Your task to perform on an android device: Is it going to rain today? Image 0: 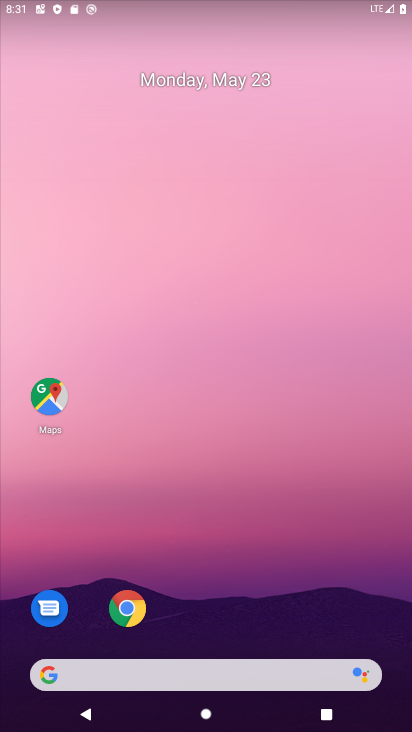
Step 0: drag from (14, 329) to (408, 294)
Your task to perform on an android device: Is it going to rain today? Image 1: 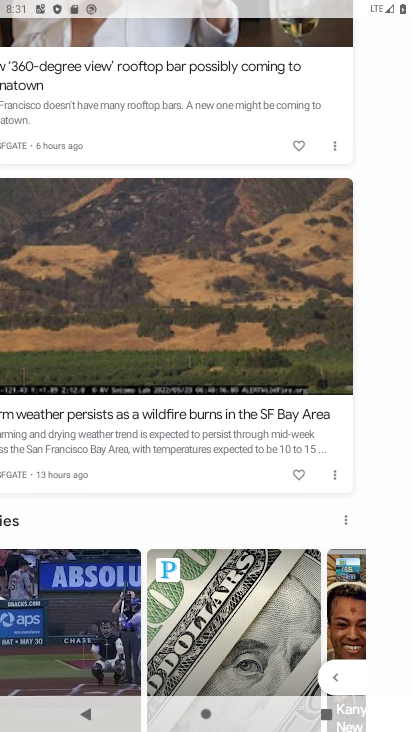
Step 1: drag from (139, 112) to (235, 711)
Your task to perform on an android device: Is it going to rain today? Image 2: 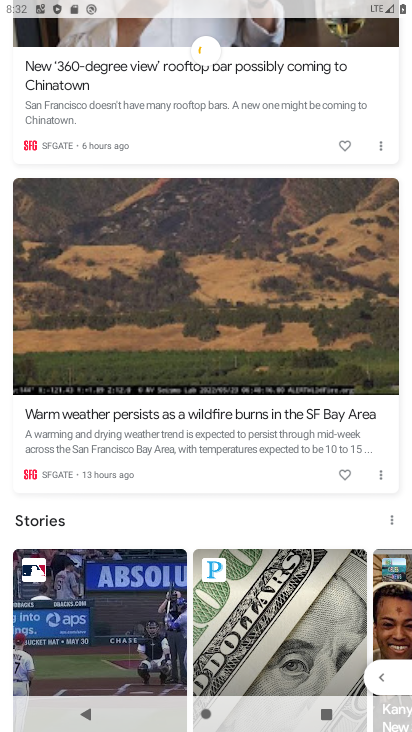
Step 2: drag from (188, 147) to (203, 653)
Your task to perform on an android device: Is it going to rain today? Image 3: 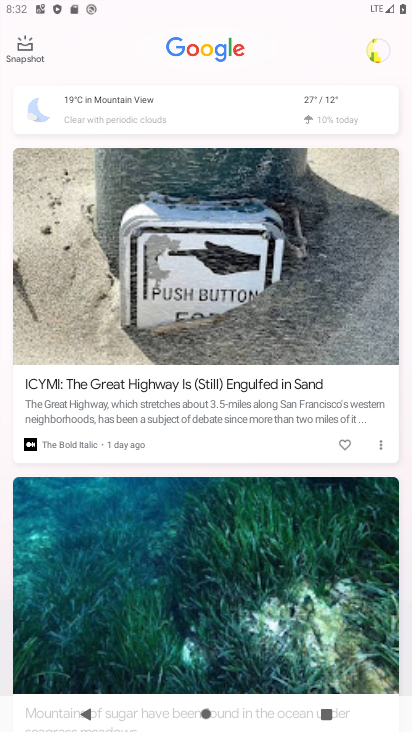
Step 3: click (48, 113)
Your task to perform on an android device: Is it going to rain today? Image 4: 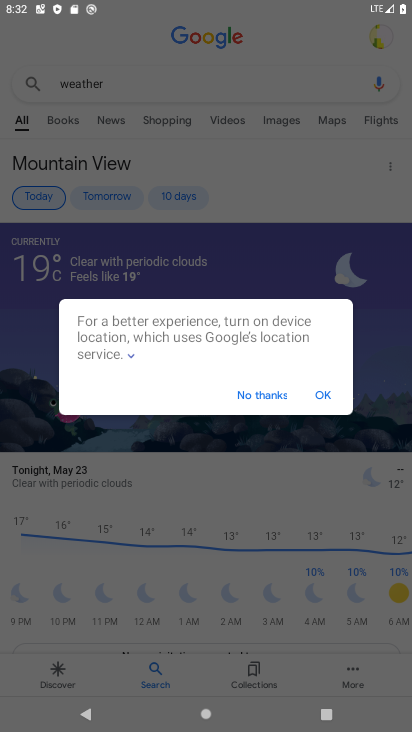
Step 4: click (318, 398)
Your task to perform on an android device: Is it going to rain today? Image 5: 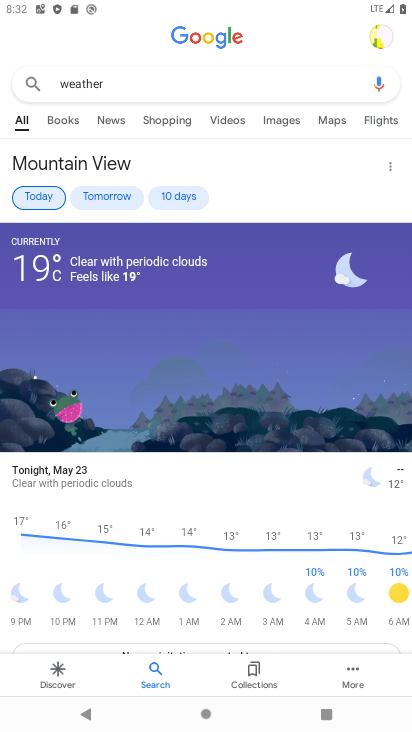
Step 5: task complete